Your task to perform on an android device: Search for hotels in Chicago Image 0: 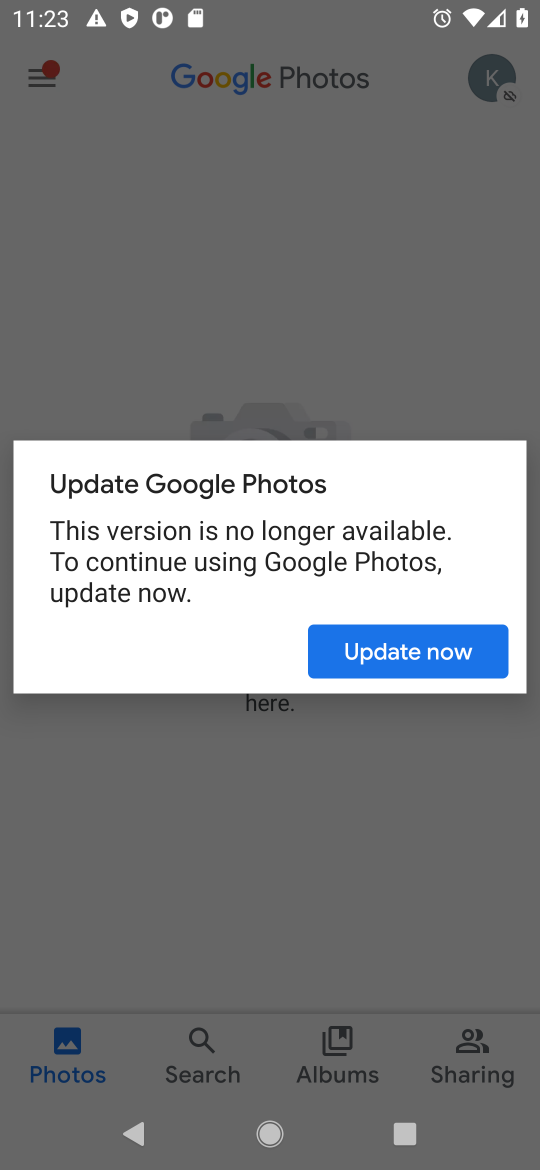
Step 0: press home button
Your task to perform on an android device: Search for hotels in Chicago Image 1: 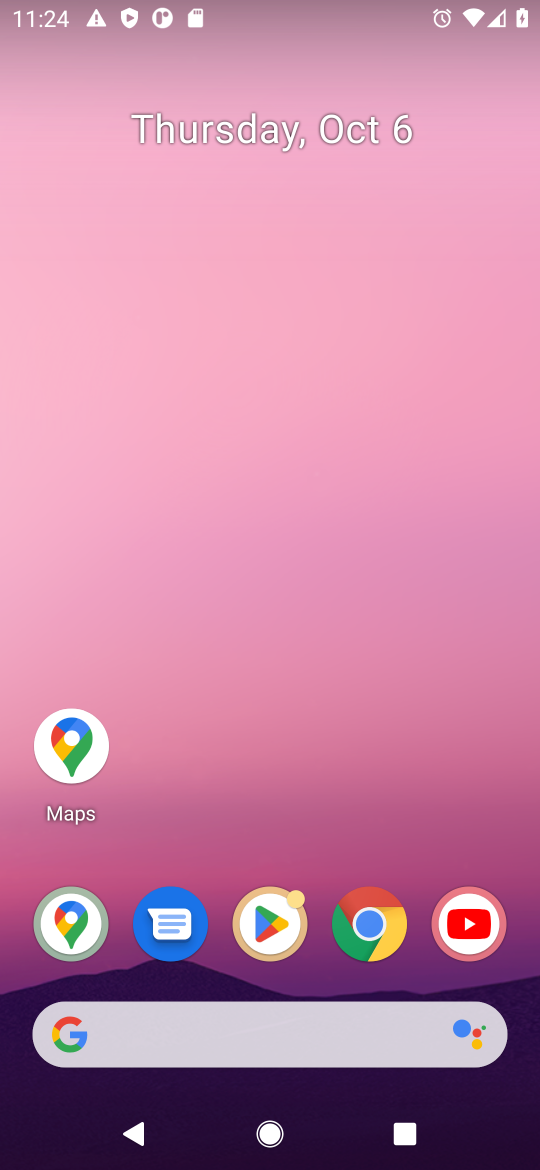
Step 1: click (374, 931)
Your task to perform on an android device: Search for hotels in Chicago Image 2: 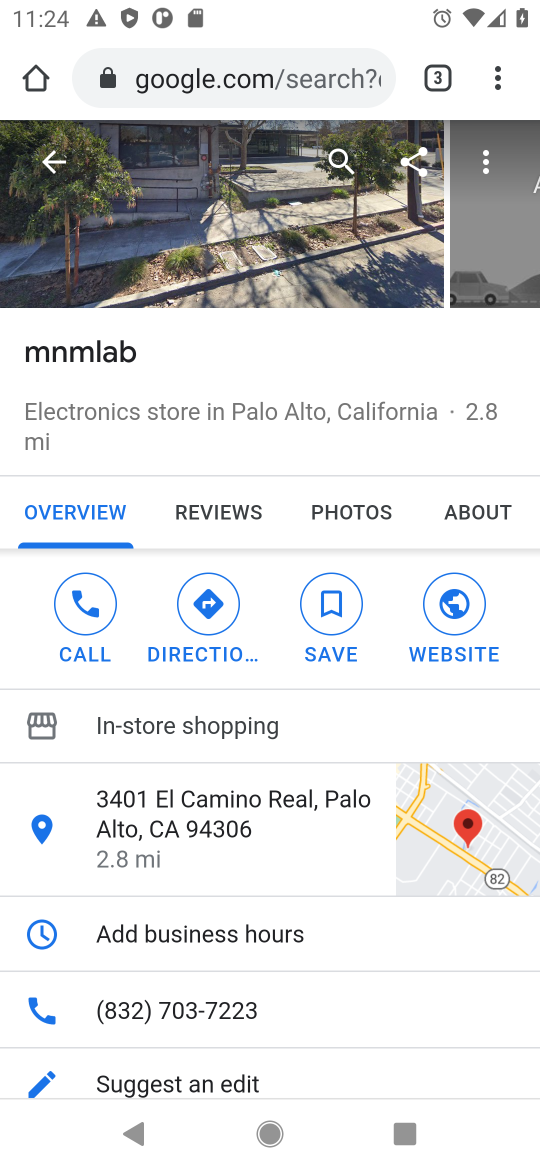
Step 2: click (317, 65)
Your task to perform on an android device: Search for hotels in Chicago Image 3: 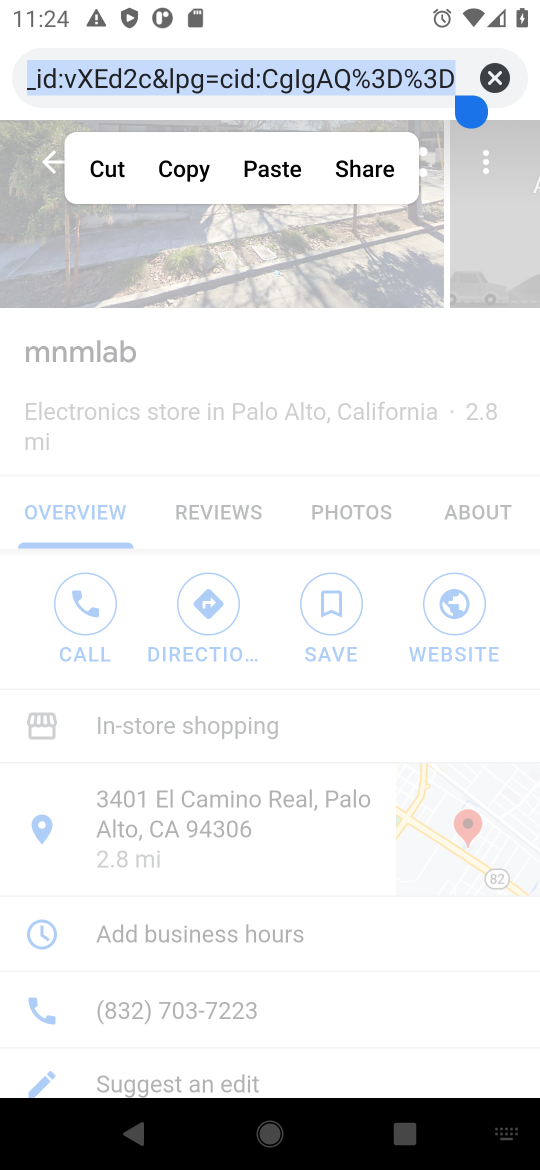
Step 3: click (491, 77)
Your task to perform on an android device: Search for hotels in Chicago Image 4: 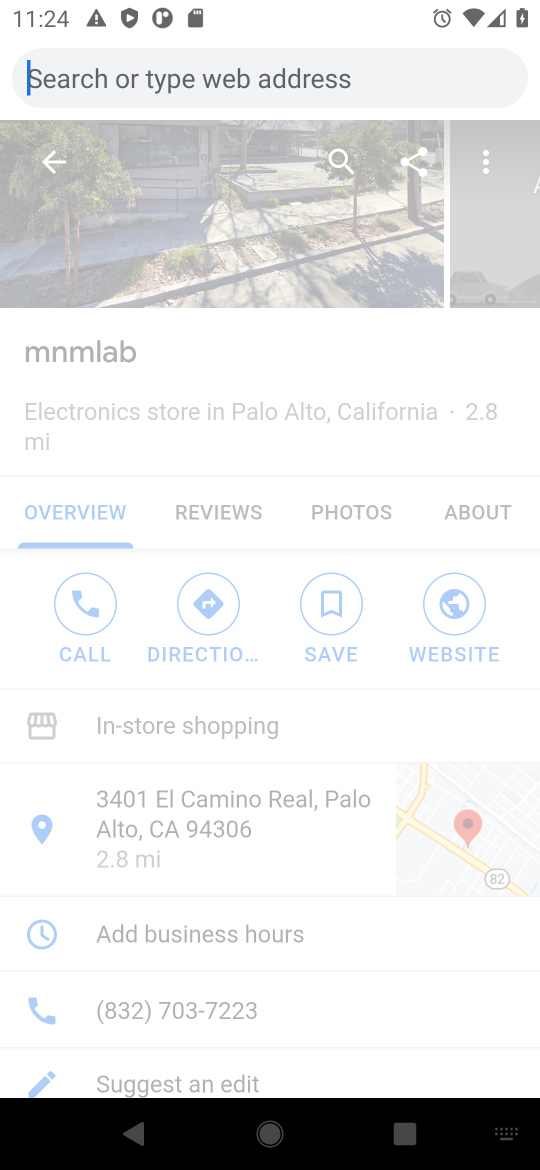
Step 4: type " hotels in Chicago"
Your task to perform on an android device: Search for hotels in Chicago Image 5: 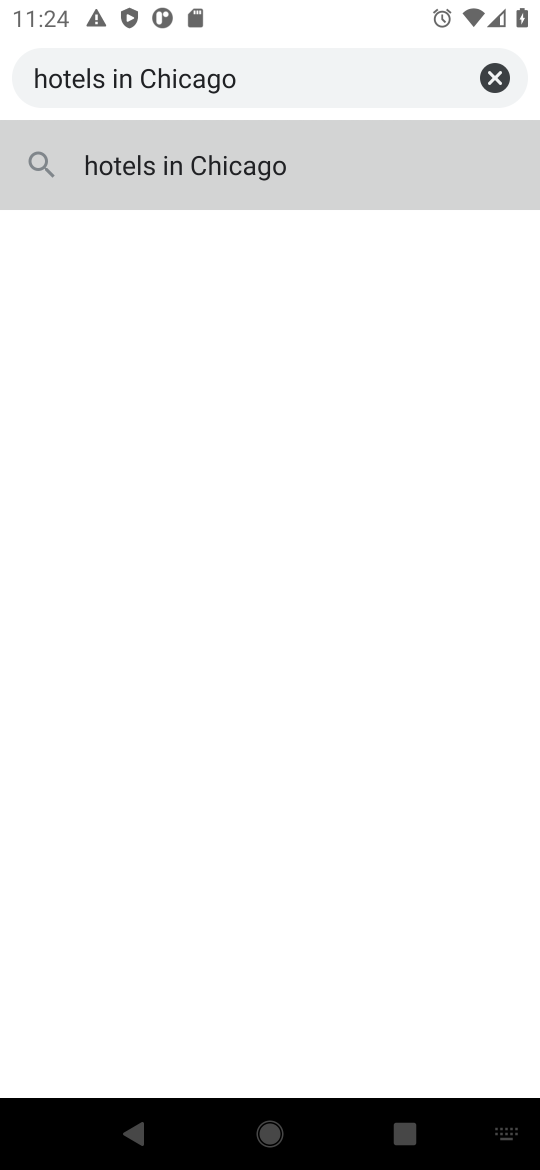
Step 5: click (201, 162)
Your task to perform on an android device: Search for hotels in Chicago Image 6: 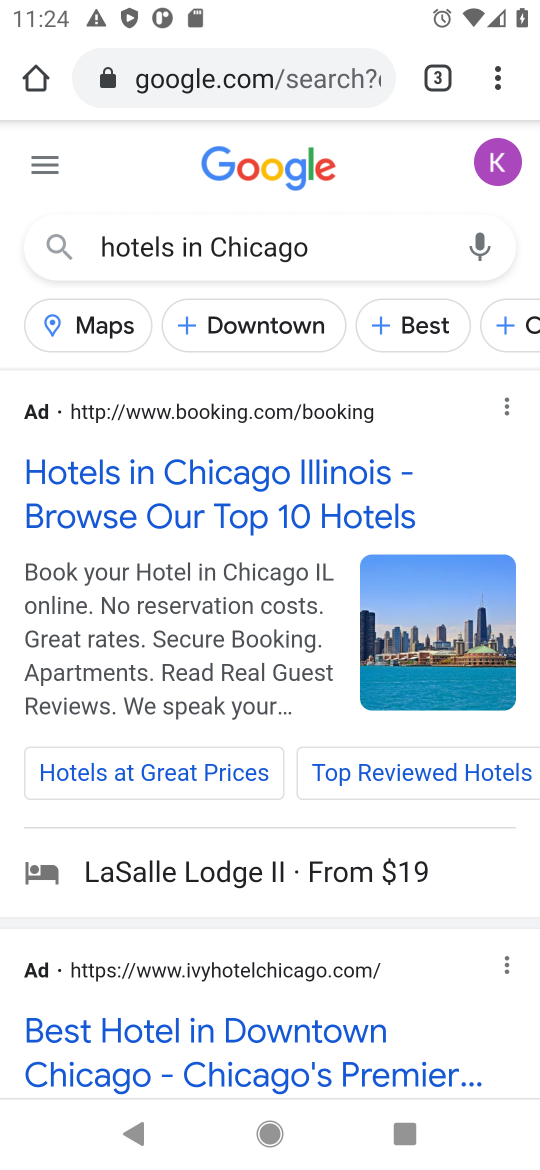
Step 6: click (146, 467)
Your task to perform on an android device: Search for hotels in Chicago Image 7: 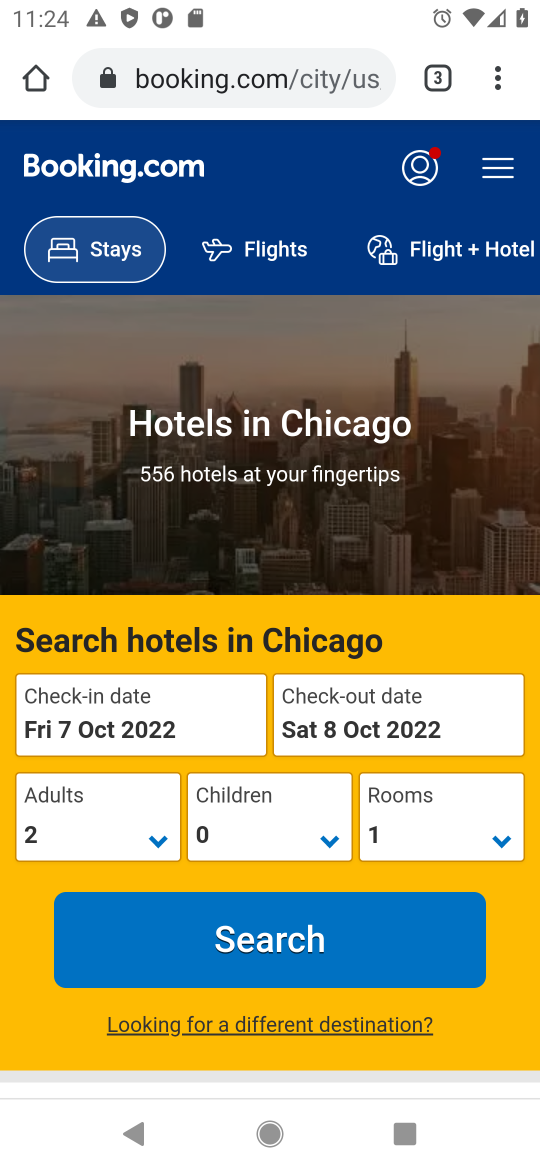
Step 7: task complete